Your task to perform on an android device: change text size in settings app Image 0: 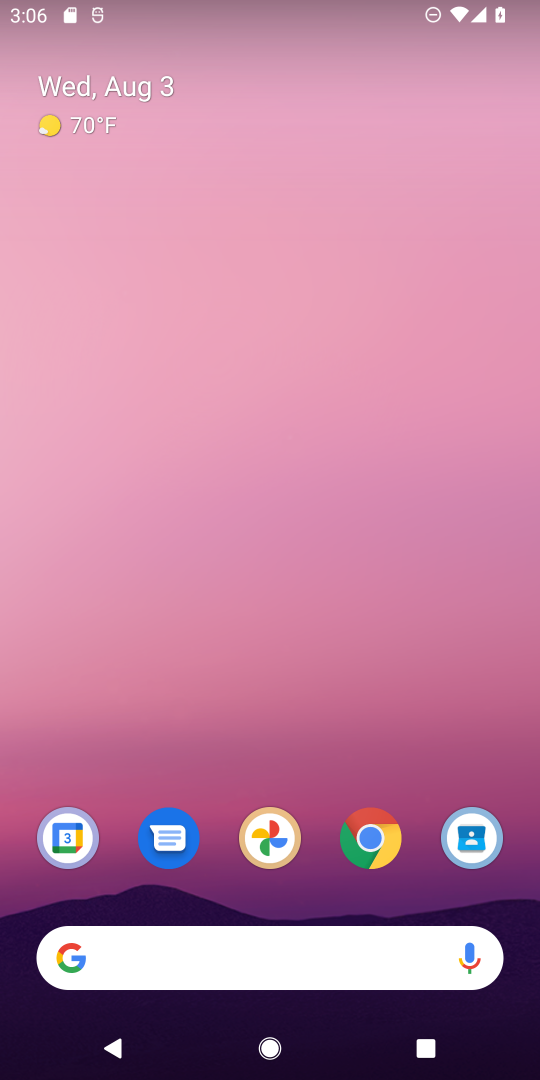
Step 0: drag from (306, 919) to (378, 194)
Your task to perform on an android device: change text size in settings app Image 1: 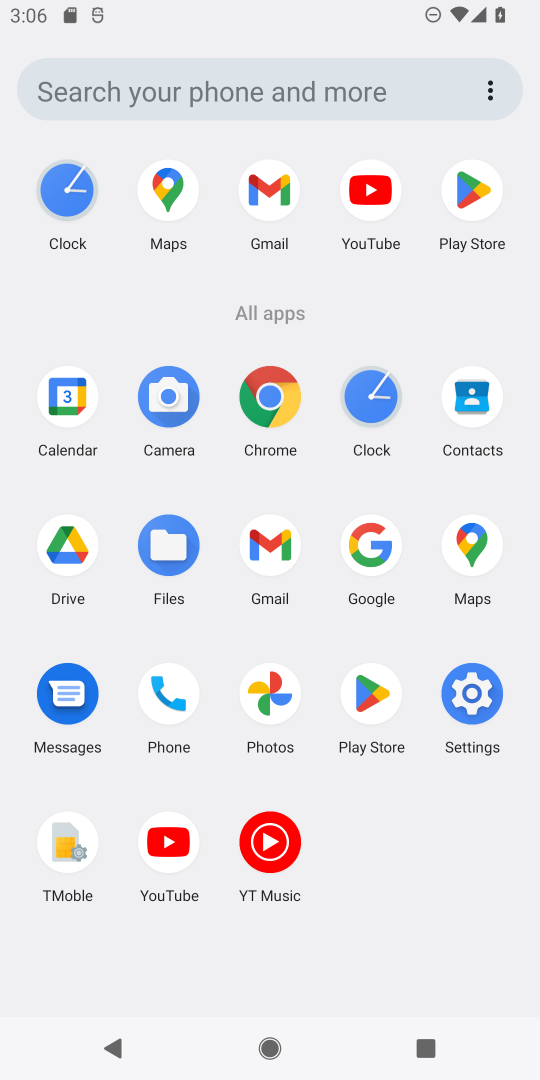
Step 1: click (463, 684)
Your task to perform on an android device: change text size in settings app Image 2: 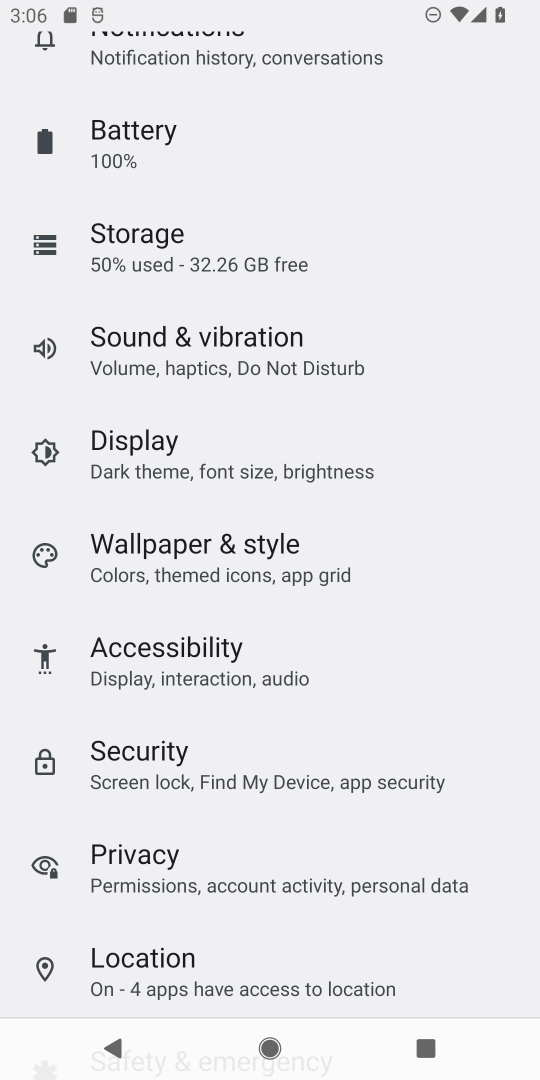
Step 2: click (286, 462)
Your task to perform on an android device: change text size in settings app Image 3: 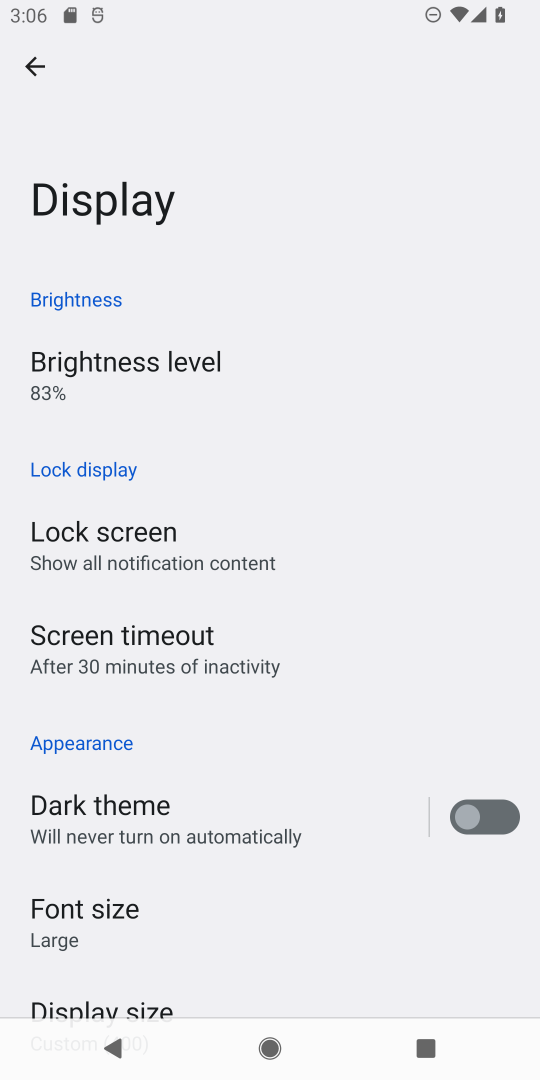
Step 3: click (153, 946)
Your task to perform on an android device: change text size in settings app Image 4: 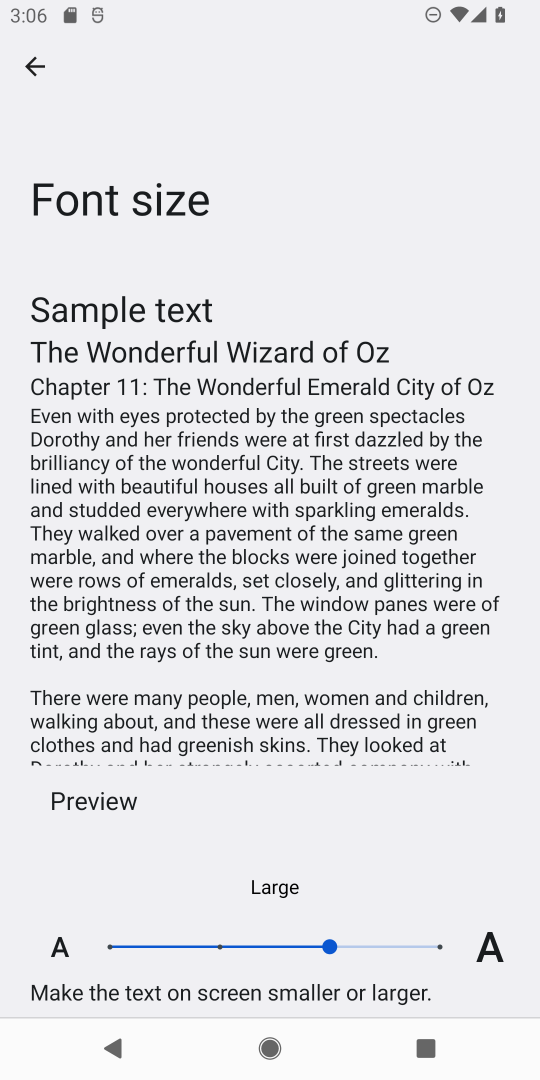
Step 4: click (436, 932)
Your task to perform on an android device: change text size in settings app Image 5: 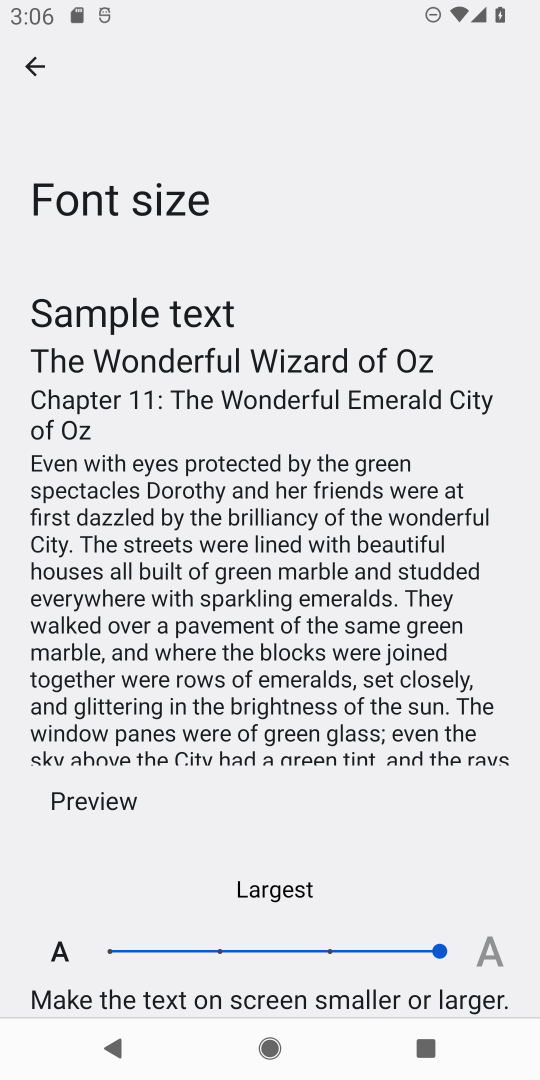
Step 5: task complete